Your task to perform on an android device: check data usage Image 0: 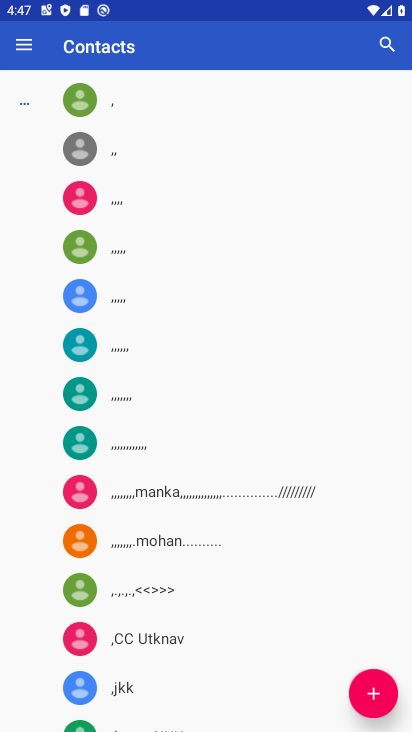
Step 0: press home button
Your task to perform on an android device: check data usage Image 1: 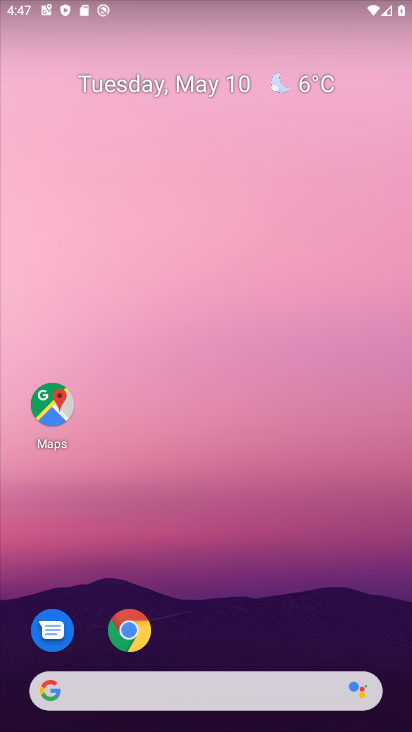
Step 1: drag from (280, 619) to (235, 150)
Your task to perform on an android device: check data usage Image 2: 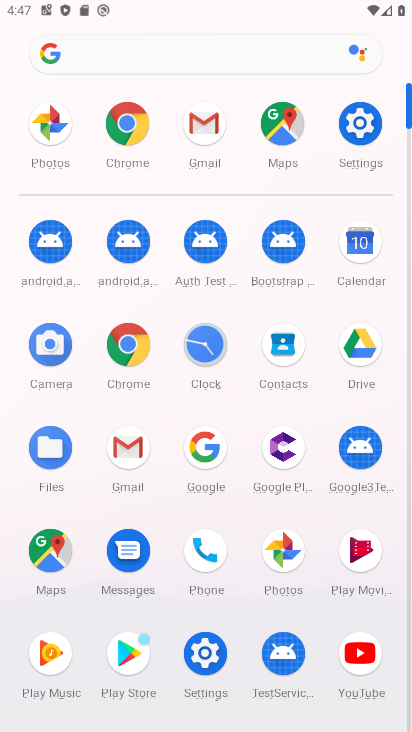
Step 2: click (361, 121)
Your task to perform on an android device: check data usage Image 3: 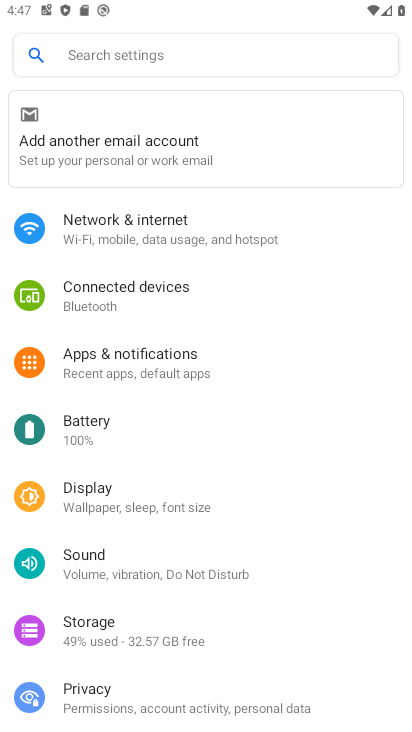
Step 3: click (146, 236)
Your task to perform on an android device: check data usage Image 4: 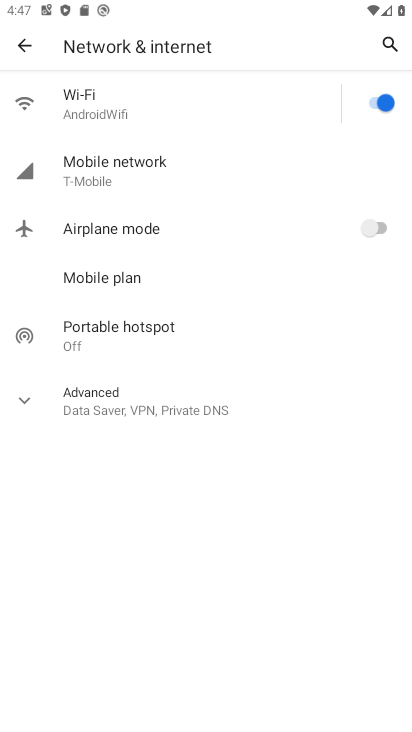
Step 4: click (152, 162)
Your task to perform on an android device: check data usage Image 5: 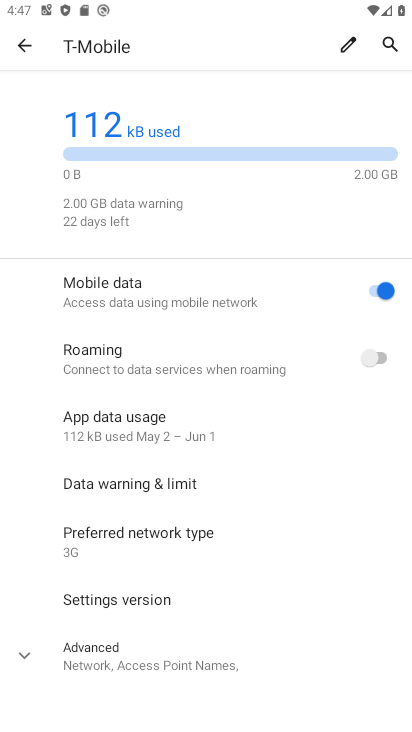
Step 5: task complete